Your task to perform on an android device: see creations saved in the google photos Image 0: 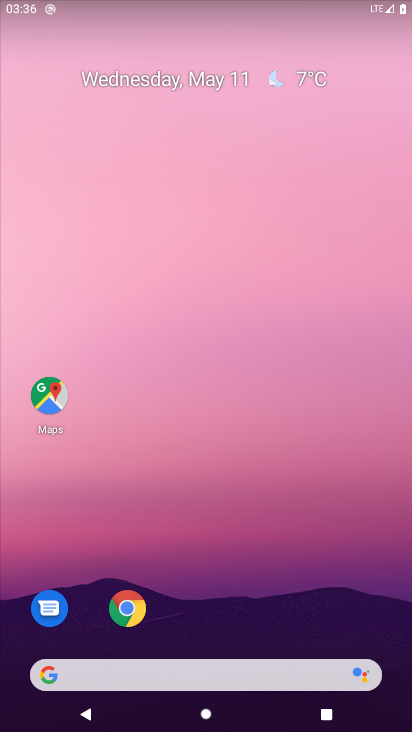
Step 0: press home button
Your task to perform on an android device: see creations saved in the google photos Image 1: 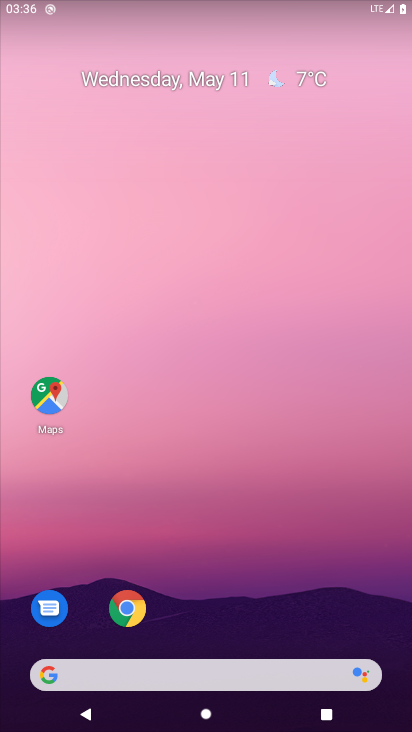
Step 1: drag from (179, 633) to (279, 131)
Your task to perform on an android device: see creations saved in the google photos Image 2: 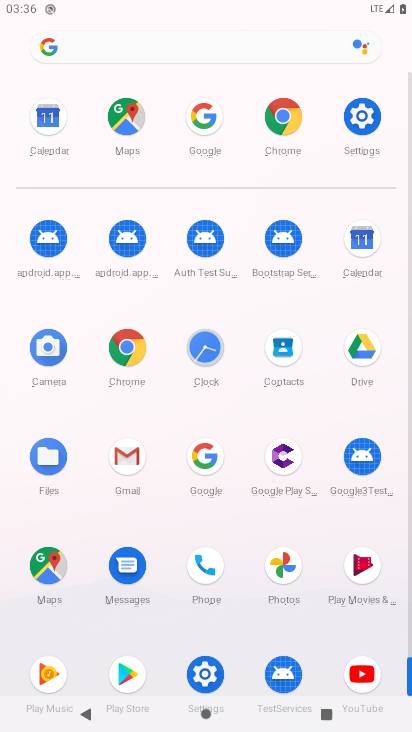
Step 2: click (289, 558)
Your task to perform on an android device: see creations saved in the google photos Image 3: 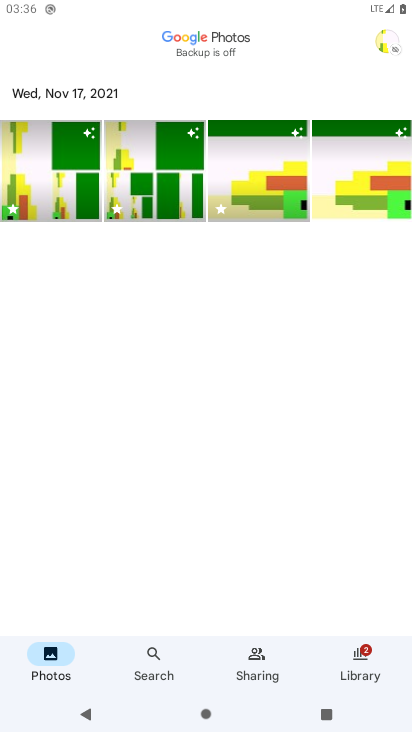
Step 3: click (137, 667)
Your task to perform on an android device: see creations saved in the google photos Image 4: 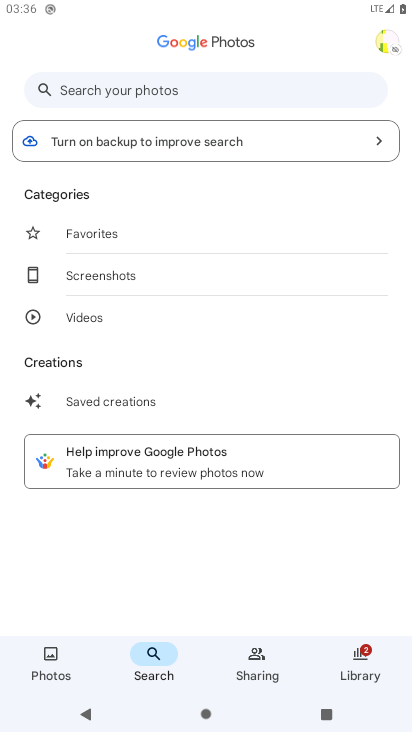
Step 4: click (129, 136)
Your task to perform on an android device: see creations saved in the google photos Image 5: 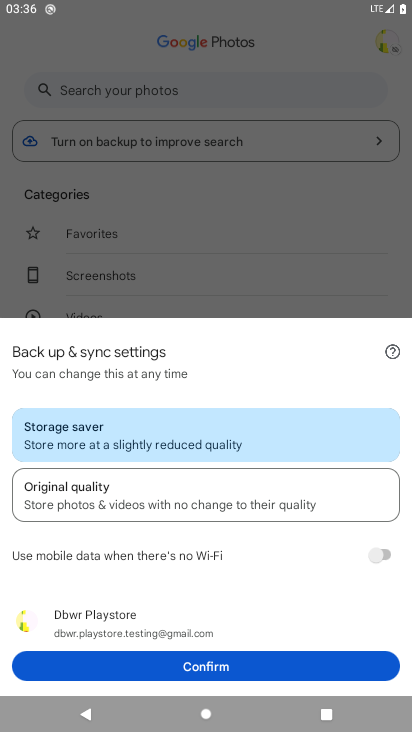
Step 5: click (212, 660)
Your task to perform on an android device: see creations saved in the google photos Image 6: 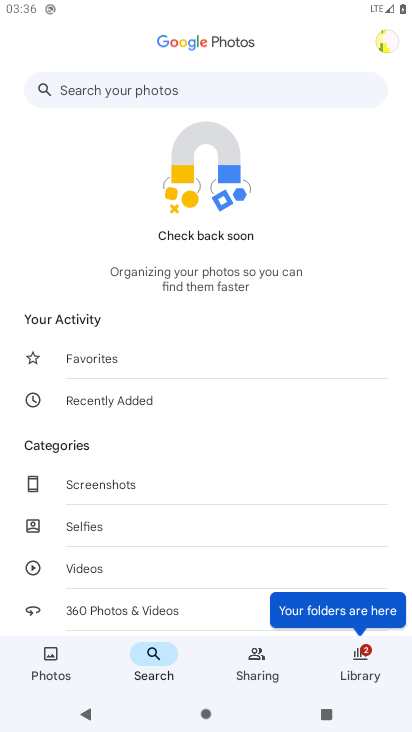
Step 6: drag from (118, 564) to (137, 396)
Your task to perform on an android device: see creations saved in the google photos Image 7: 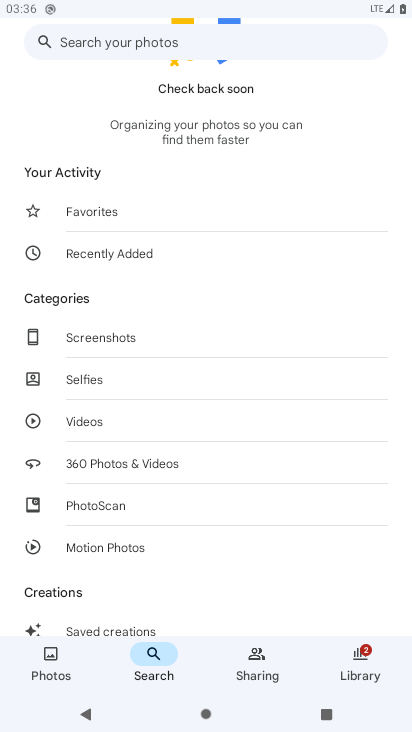
Step 7: click (158, 319)
Your task to perform on an android device: see creations saved in the google photos Image 8: 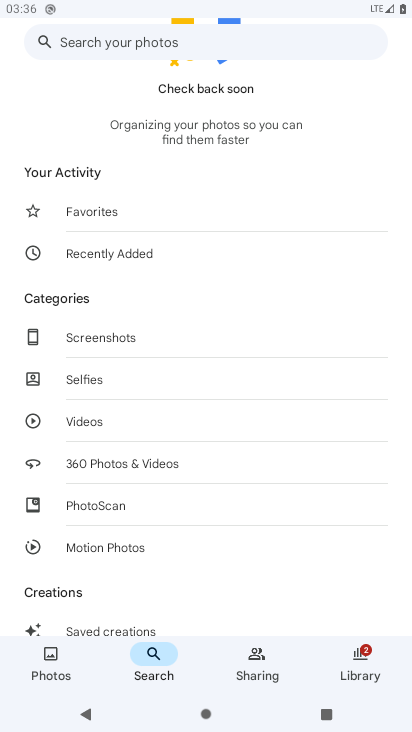
Step 8: click (129, 630)
Your task to perform on an android device: see creations saved in the google photos Image 9: 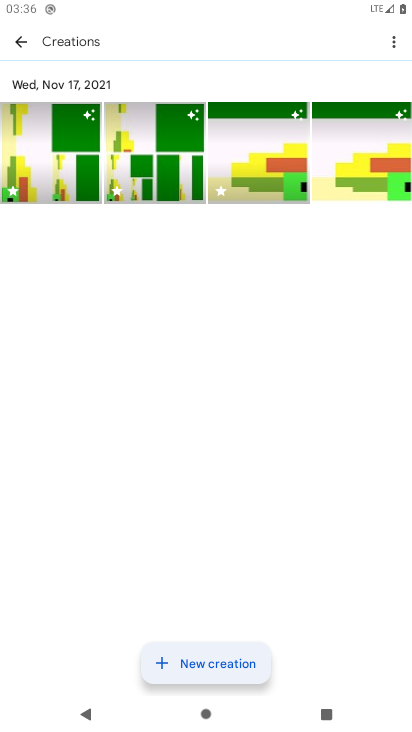
Step 9: task complete